Your task to perform on an android device: visit the assistant section in the google photos Image 0: 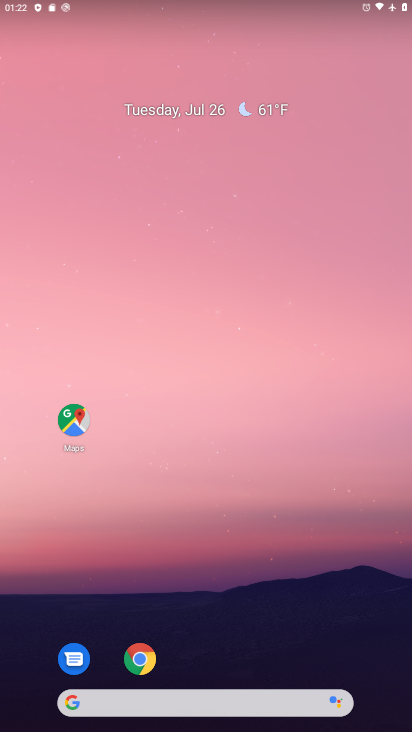
Step 0: drag from (326, 567) to (288, 85)
Your task to perform on an android device: visit the assistant section in the google photos Image 1: 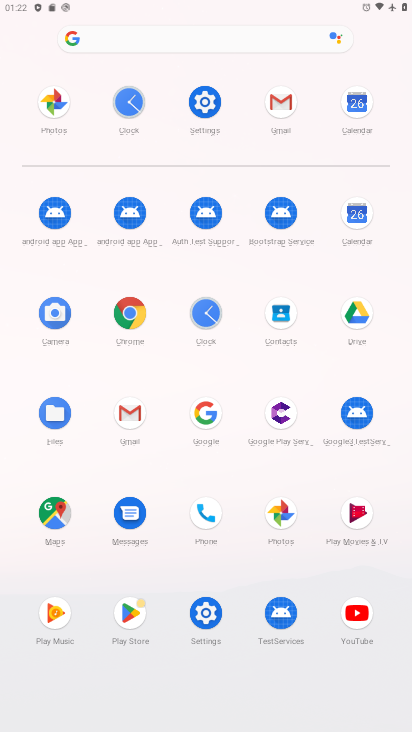
Step 1: click (271, 519)
Your task to perform on an android device: visit the assistant section in the google photos Image 2: 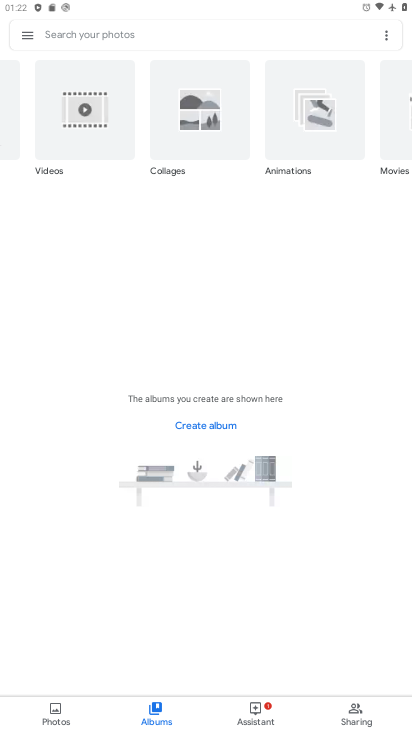
Step 2: click (249, 711)
Your task to perform on an android device: visit the assistant section in the google photos Image 3: 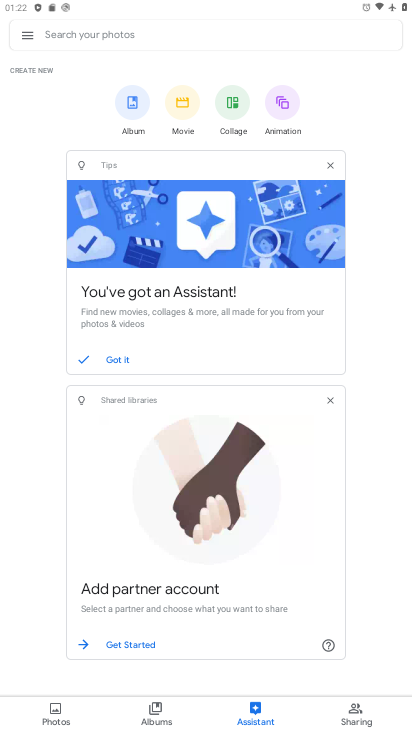
Step 3: task complete